Your task to perform on an android device: set an alarm Image 0: 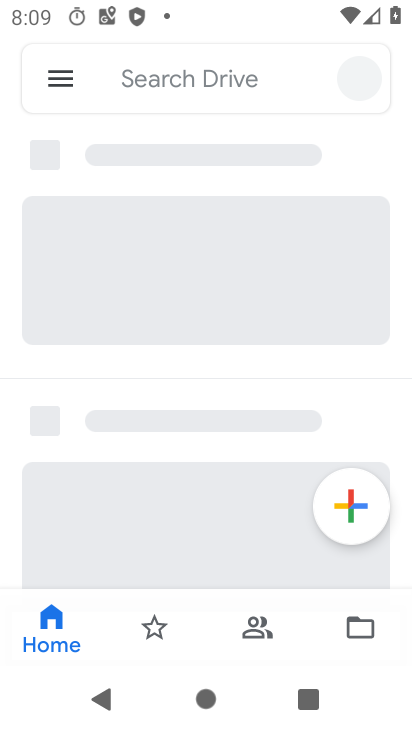
Step 0: press back button
Your task to perform on an android device: set an alarm Image 1: 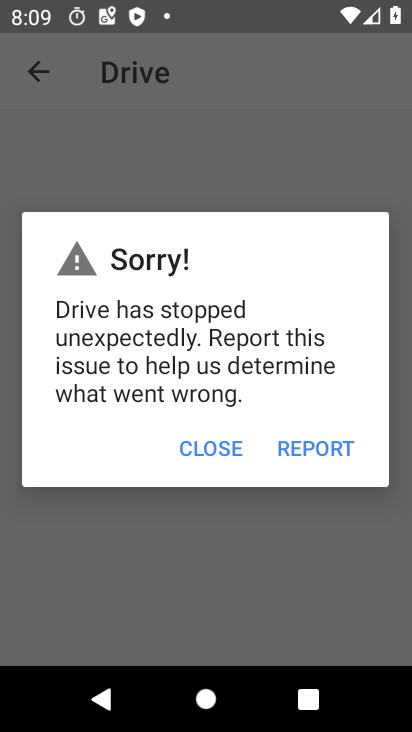
Step 1: press home button
Your task to perform on an android device: set an alarm Image 2: 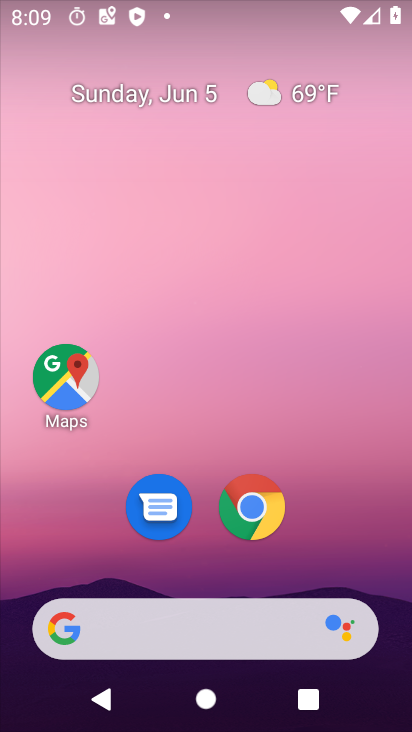
Step 2: drag from (360, 552) to (226, 15)
Your task to perform on an android device: set an alarm Image 3: 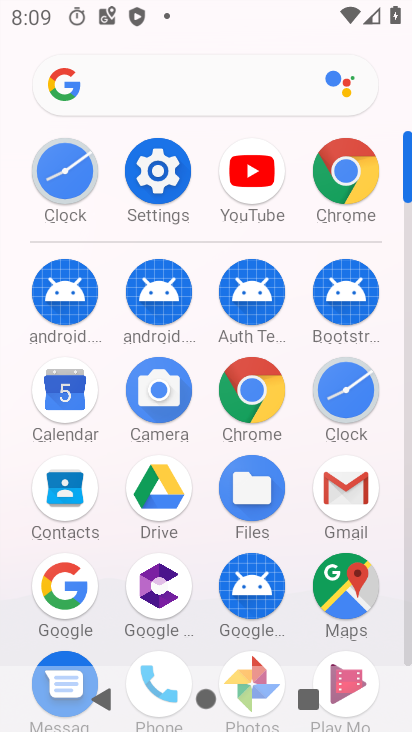
Step 3: click (343, 391)
Your task to perform on an android device: set an alarm Image 4: 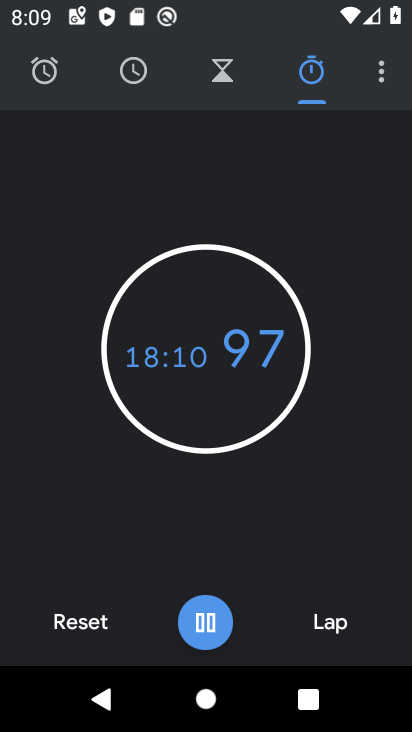
Step 4: click (48, 71)
Your task to perform on an android device: set an alarm Image 5: 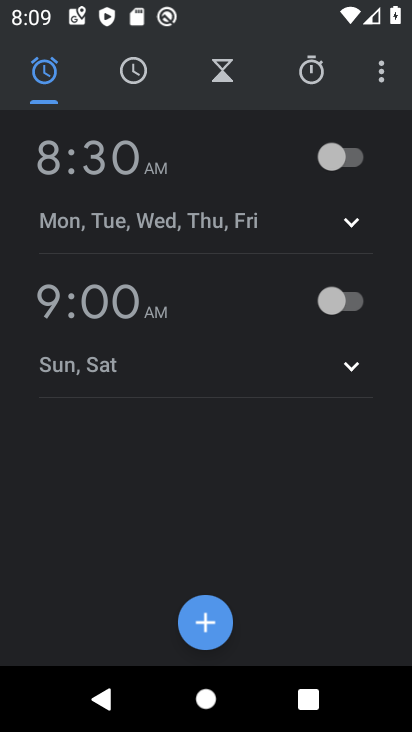
Step 5: click (201, 614)
Your task to perform on an android device: set an alarm Image 6: 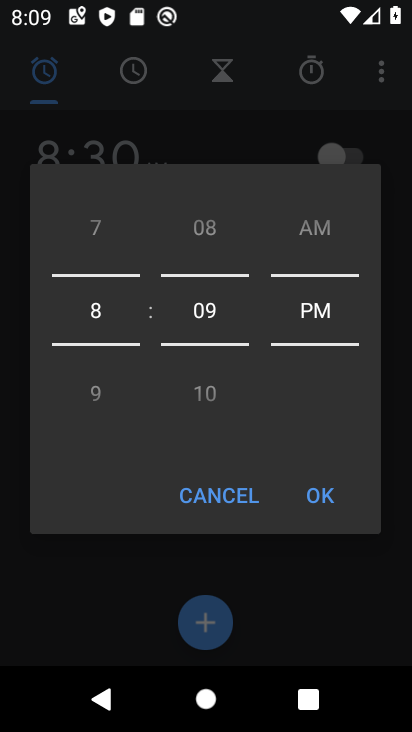
Step 6: drag from (99, 434) to (101, 171)
Your task to perform on an android device: set an alarm Image 7: 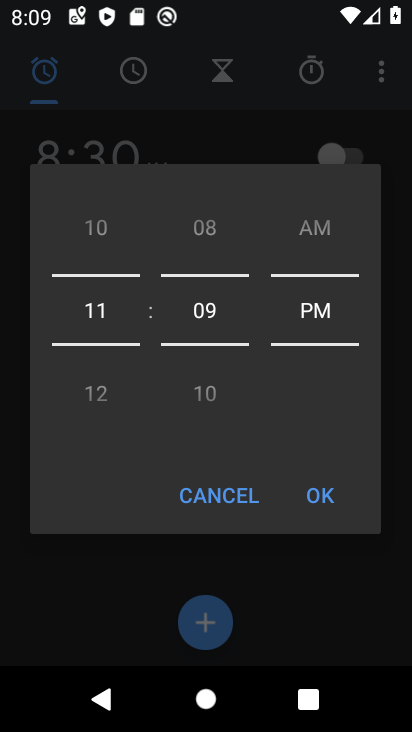
Step 7: click (312, 492)
Your task to perform on an android device: set an alarm Image 8: 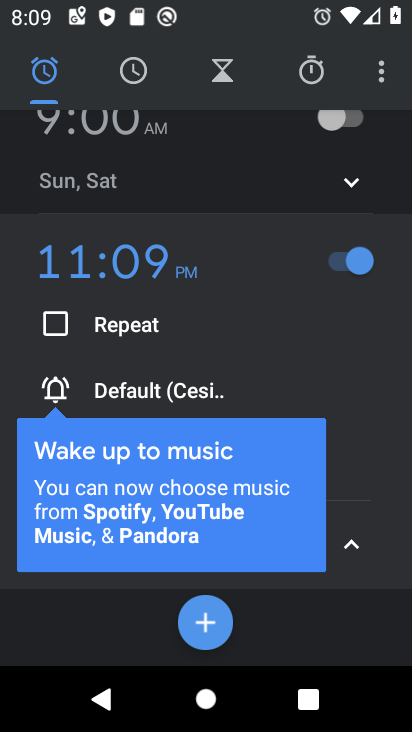
Step 8: task complete